Your task to perform on an android device: turn on showing notifications on the lock screen Image 0: 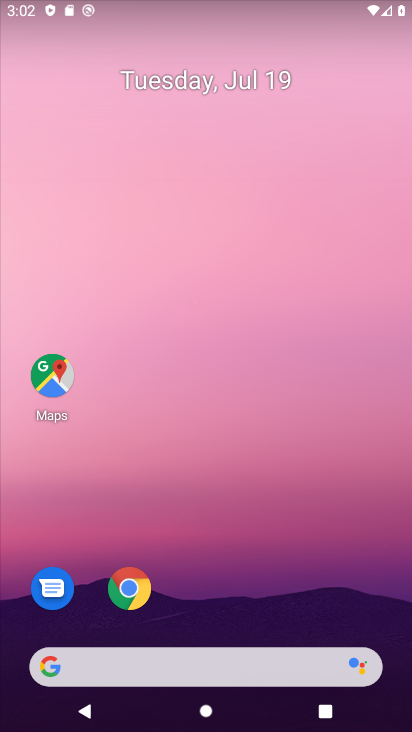
Step 0: drag from (215, 554) to (292, 217)
Your task to perform on an android device: turn on showing notifications on the lock screen Image 1: 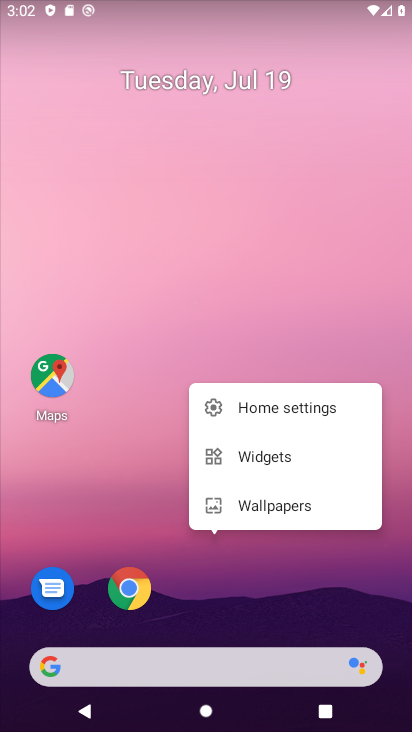
Step 1: click (79, 350)
Your task to perform on an android device: turn on showing notifications on the lock screen Image 2: 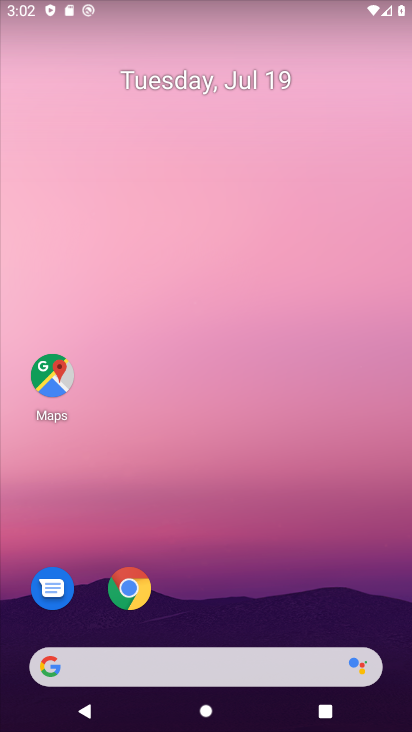
Step 2: drag from (140, 429) to (217, 60)
Your task to perform on an android device: turn on showing notifications on the lock screen Image 3: 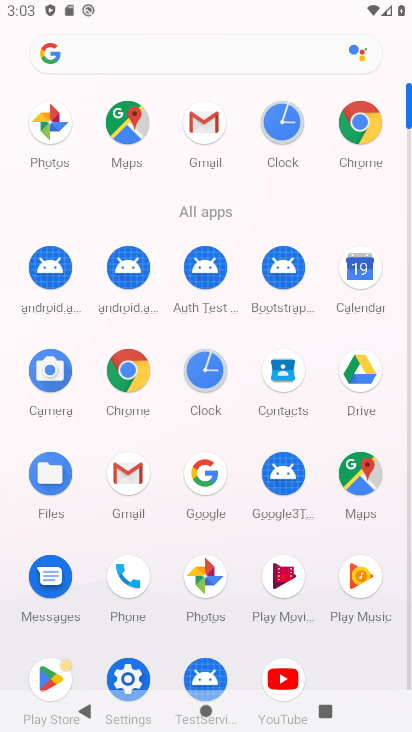
Step 3: click (126, 676)
Your task to perform on an android device: turn on showing notifications on the lock screen Image 4: 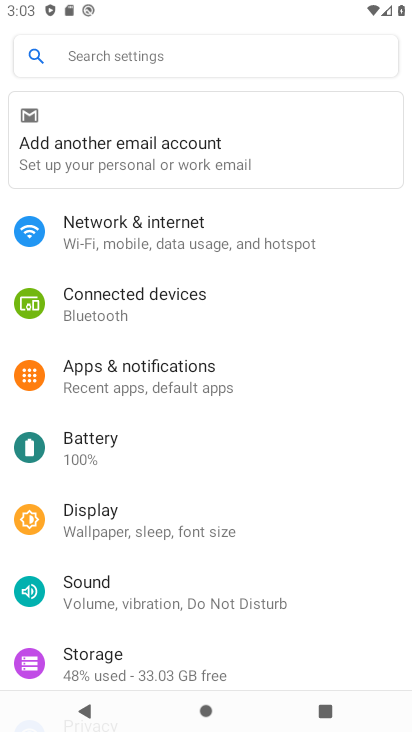
Step 4: click (144, 364)
Your task to perform on an android device: turn on showing notifications on the lock screen Image 5: 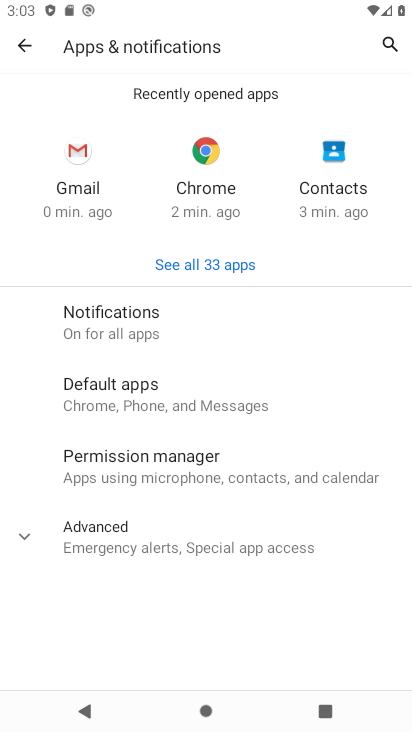
Step 5: click (101, 316)
Your task to perform on an android device: turn on showing notifications on the lock screen Image 6: 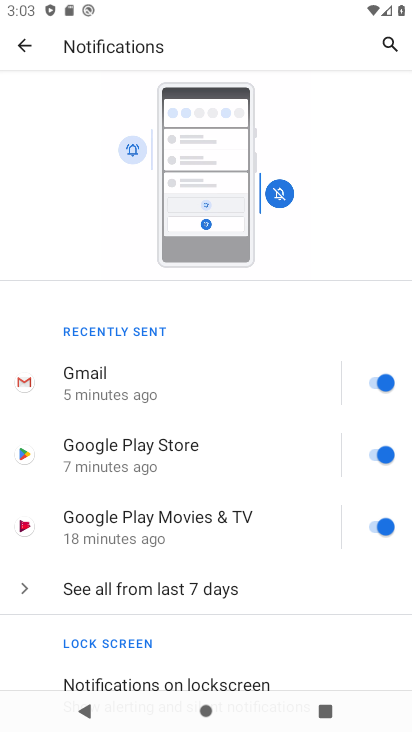
Step 6: click (121, 681)
Your task to perform on an android device: turn on showing notifications on the lock screen Image 7: 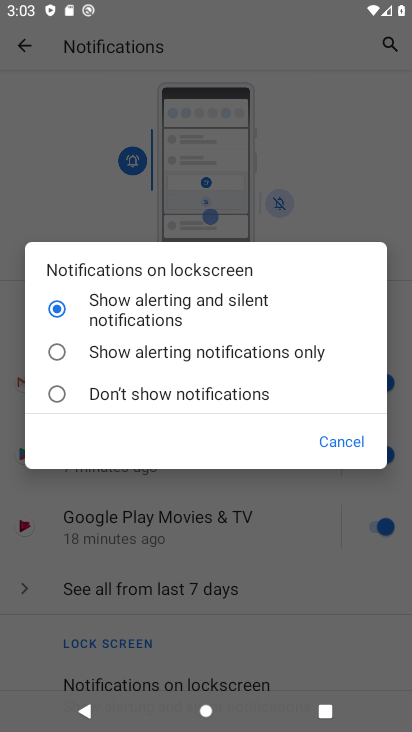
Step 7: task complete